Your task to perform on an android device: Search for asus zenbook on walmart, select the first entry, and add it to the cart. Image 0: 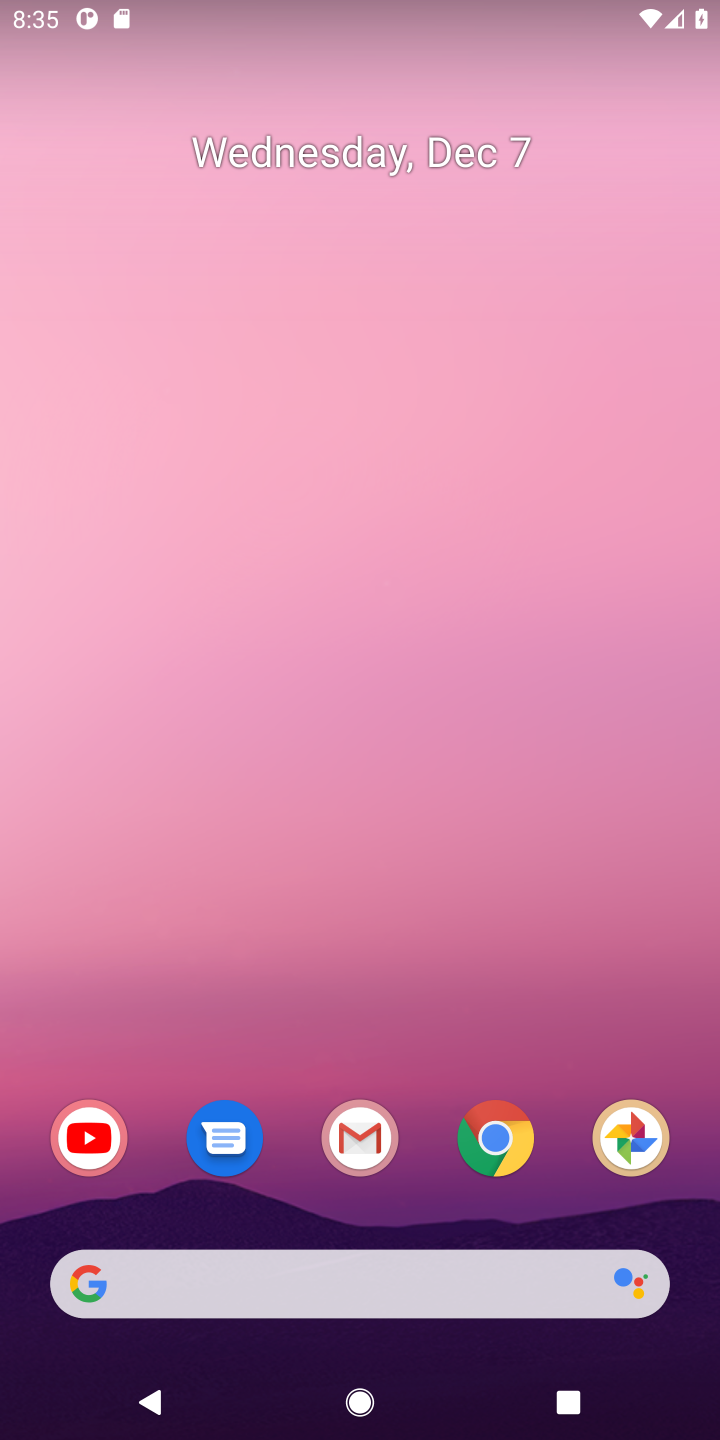
Step 0: press home button
Your task to perform on an android device: Search for asus zenbook on walmart, select the first entry, and add it to the cart. Image 1: 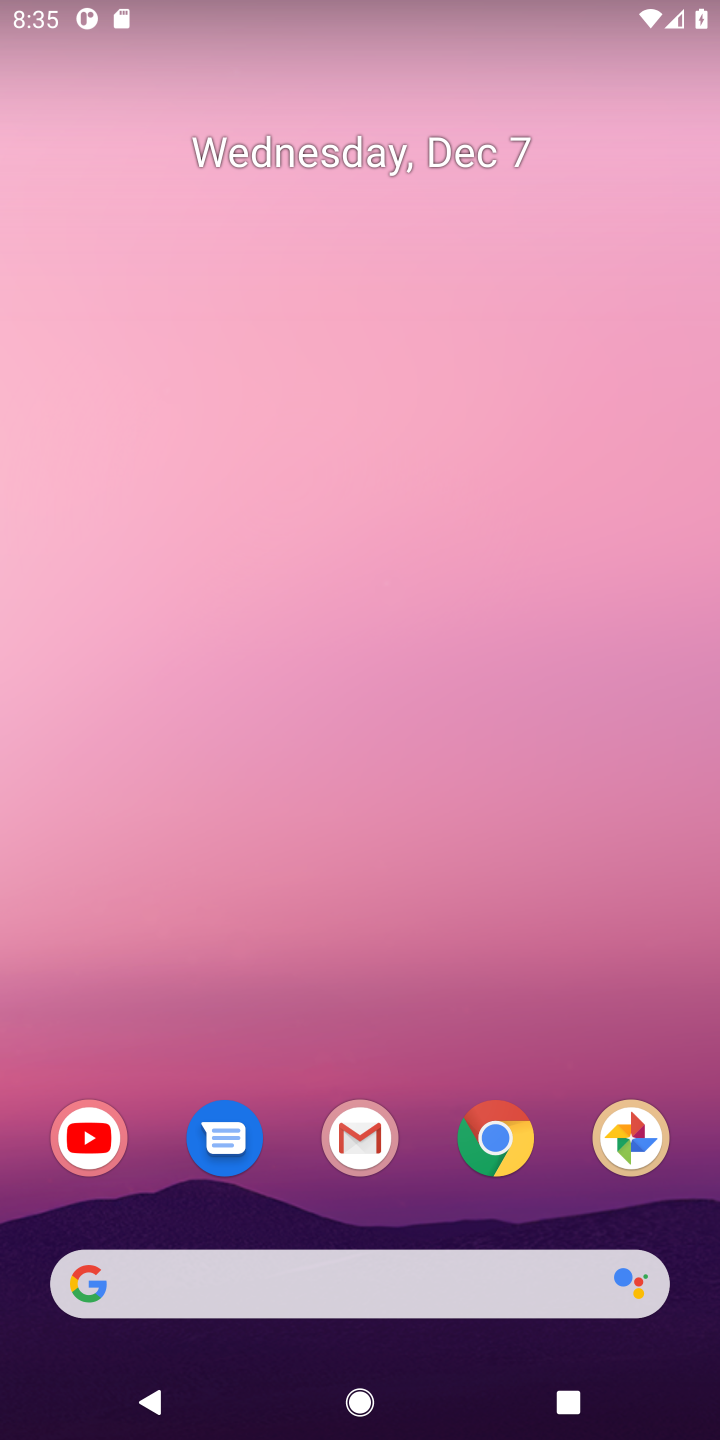
Step 1: click (131, 1294)
Your task to perform on an android device: Search for asus zenbook on walmart, select the first entry, and add it to the cart. Image 2: 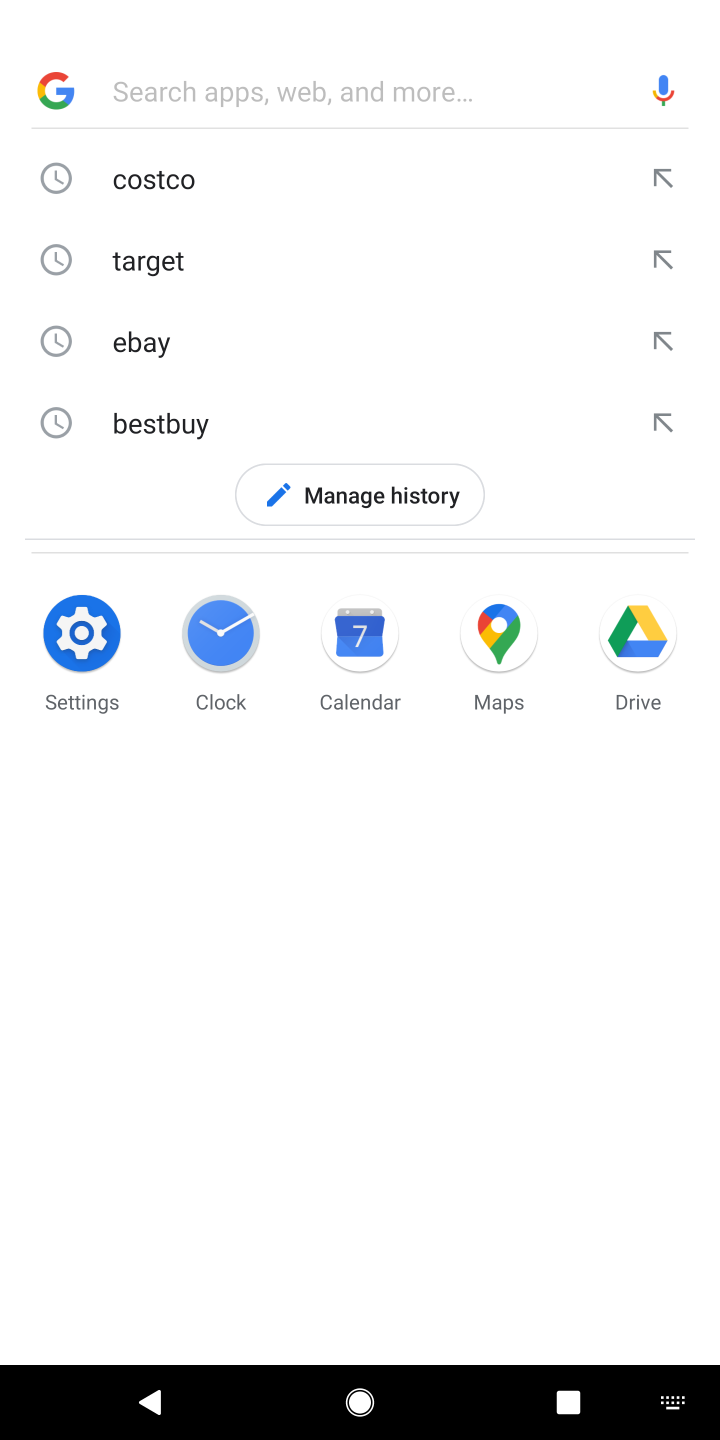
Step 2: press enter
Your task to perform on an android device: Search for asus zenbook on walmart, select the first entry, and add it to the cart. Image 3: 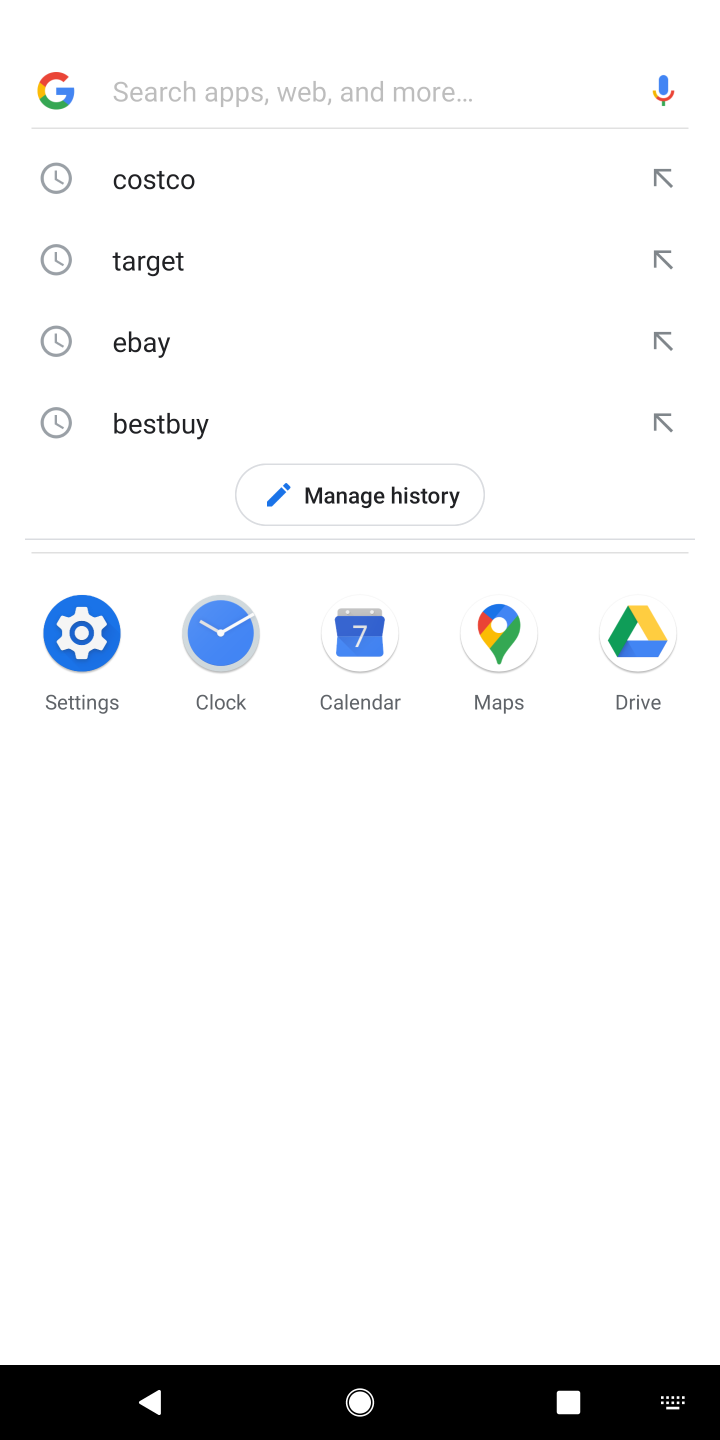
Step 3: type "walmart"
Your task to perform on an android device: Search for asus zenbook on walmart, select the first entry, and add it to the cart. Image 4: 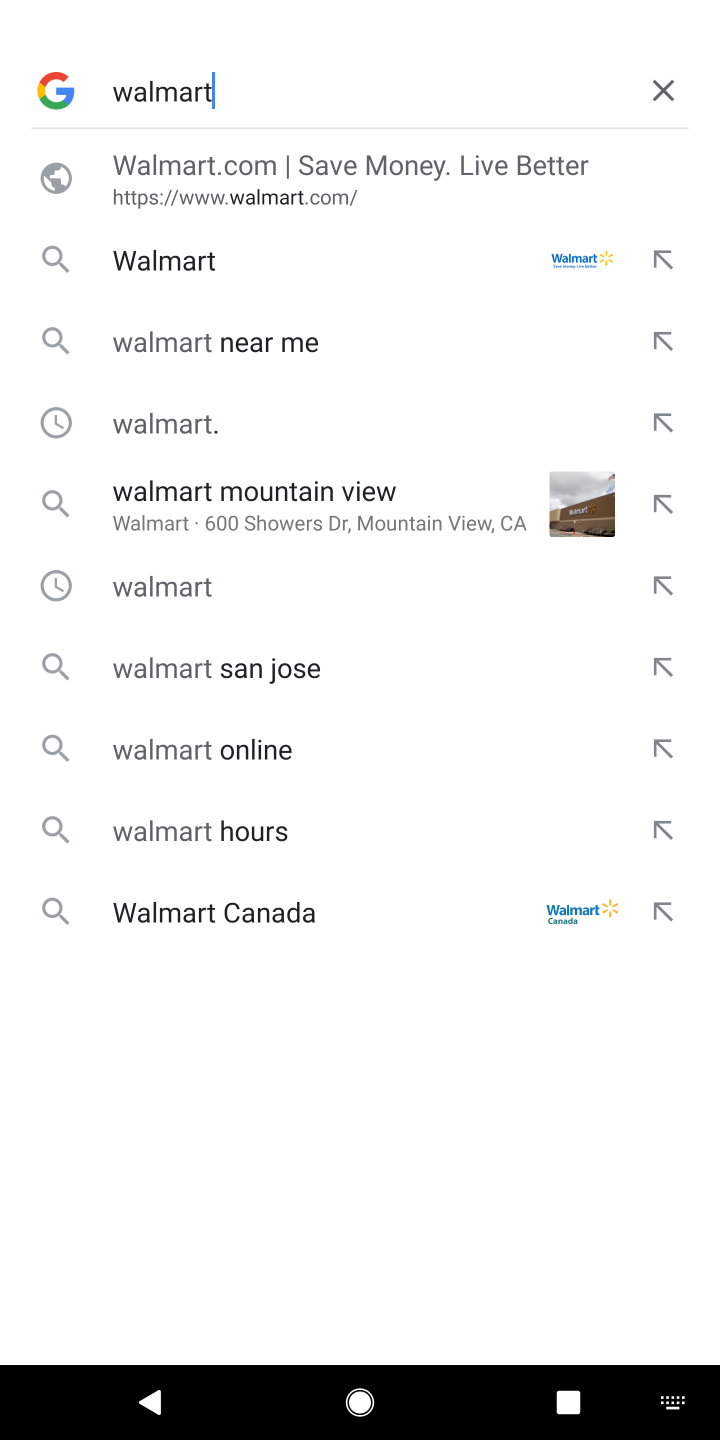
Step 4: press enter
Your task to perform on an android device: Search for asus zenbook on walmart, select the first entry, and add it to the cart. Image 5: 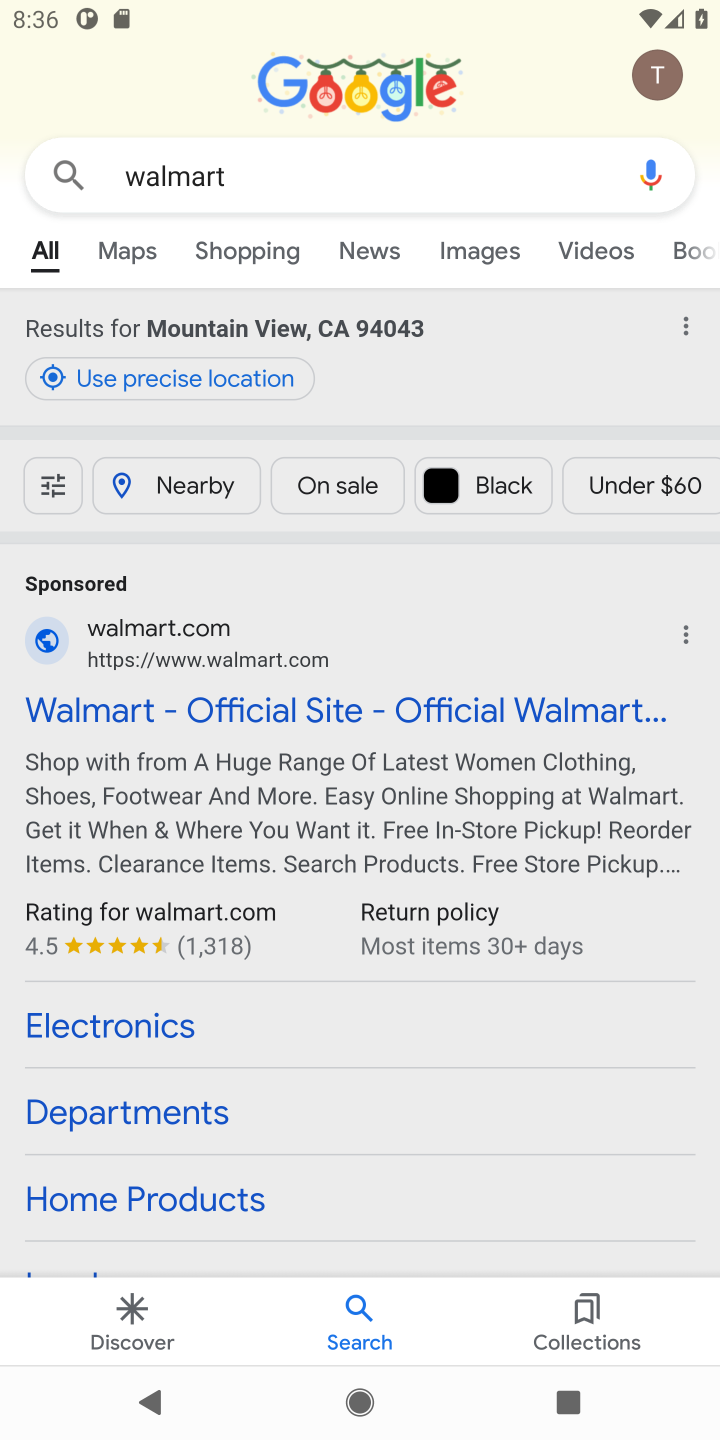
Step 5: click (283, 711)
Your task to perform on an android device: Search for asus zenbook on walmart, select the first entry, and add it to the cart. Image 6: 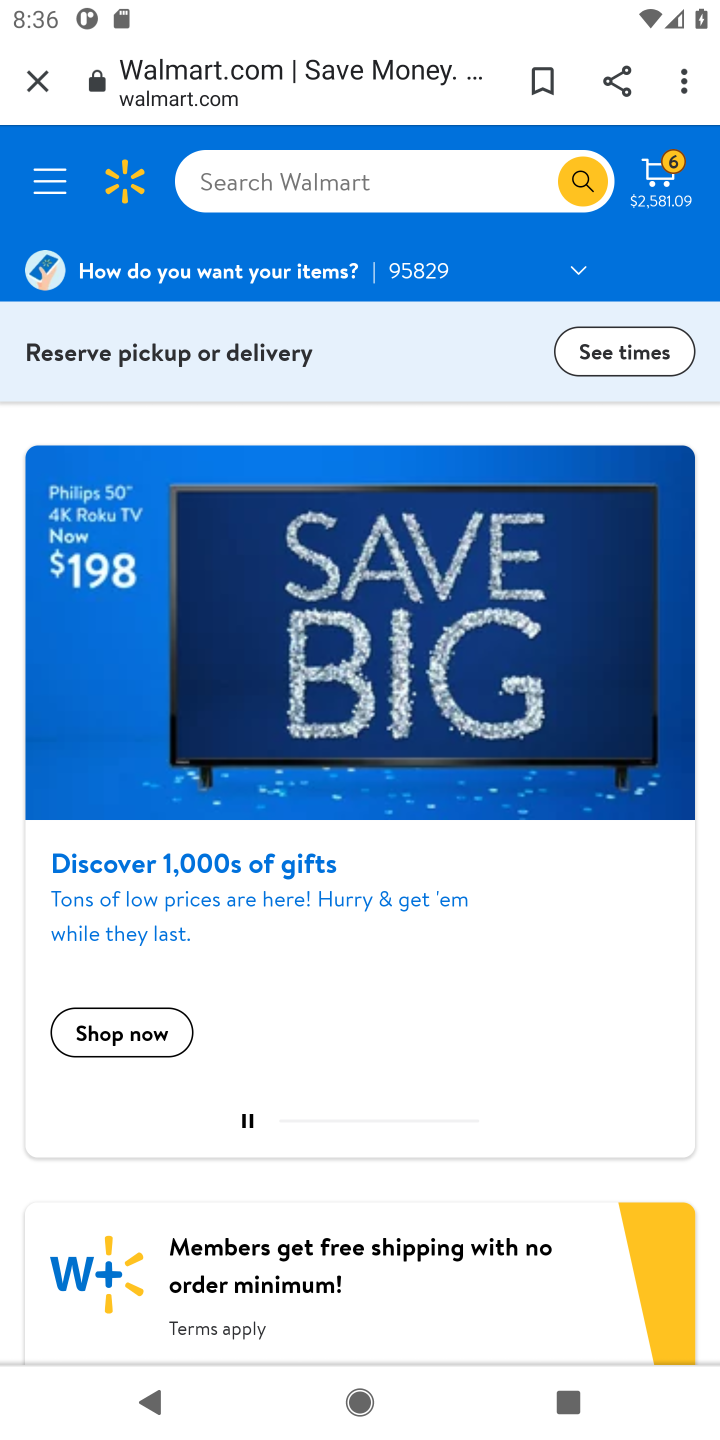
Step 6: click (250, 179)
Your task to perform on an android device: Search for asus zenbook on walmart, select the first entry, and add it to the cart. Image 7: 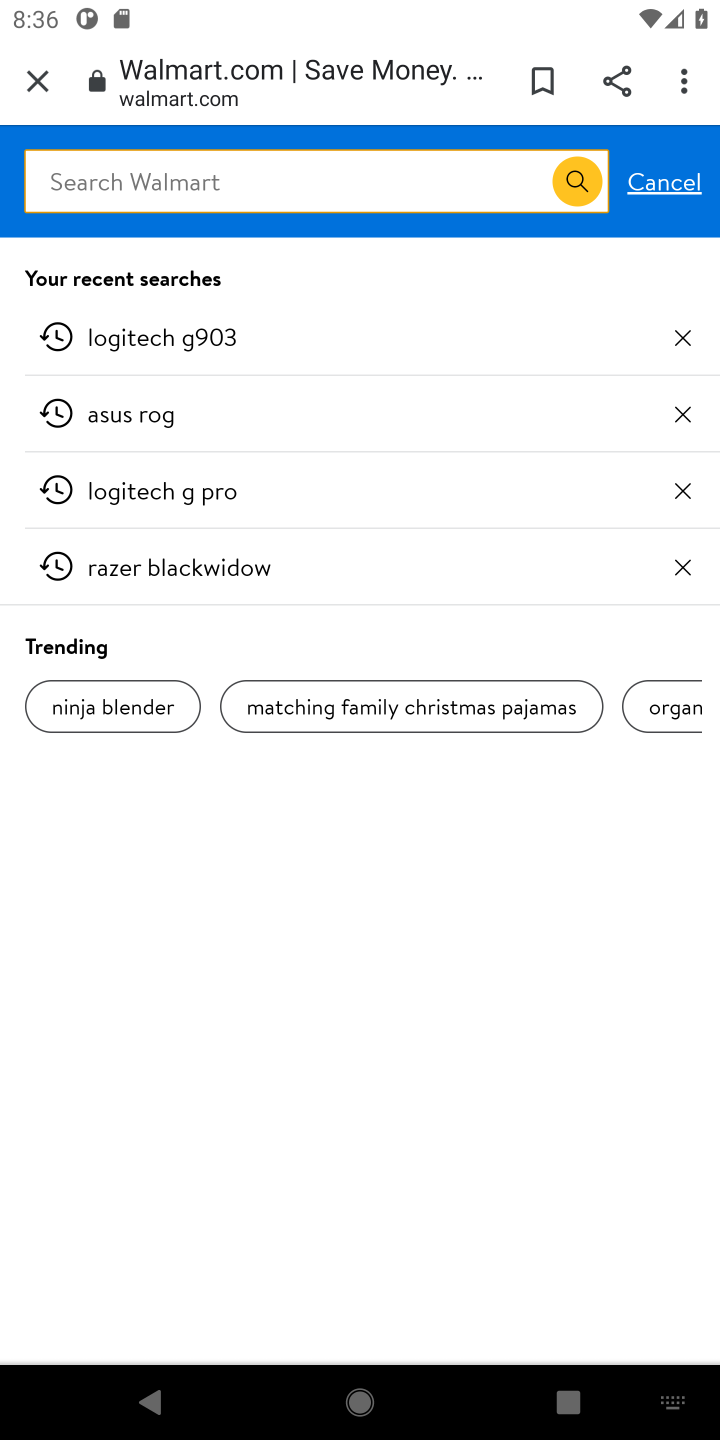
Step 7: type "asus zenbook "
Your task to perform on an android device: Search for asus zenbook on walmart, select the first entry, and add it to the cart. Image 8: 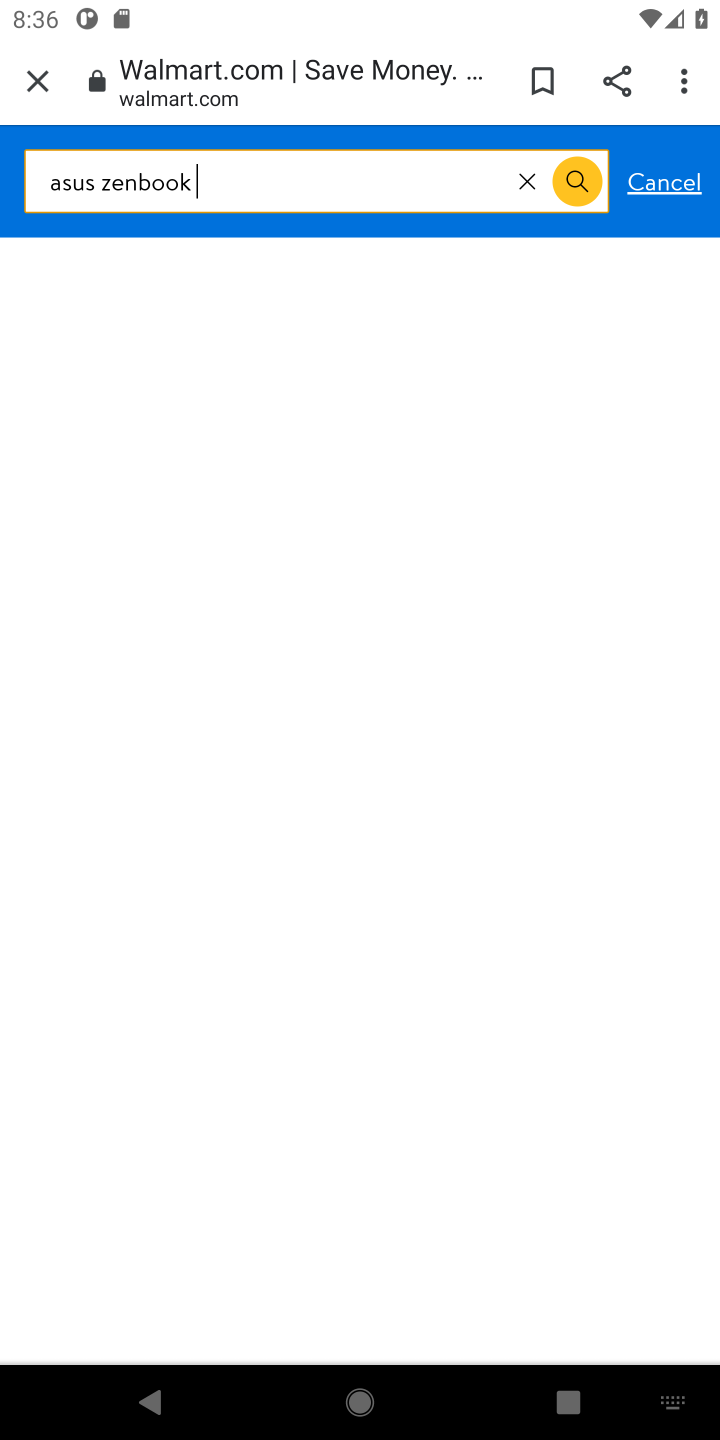
Step 8: press enter
Your task to perform on an android device: Search for asus zenbook on walmart, select the first entry, and add it to the cart. Image 9: 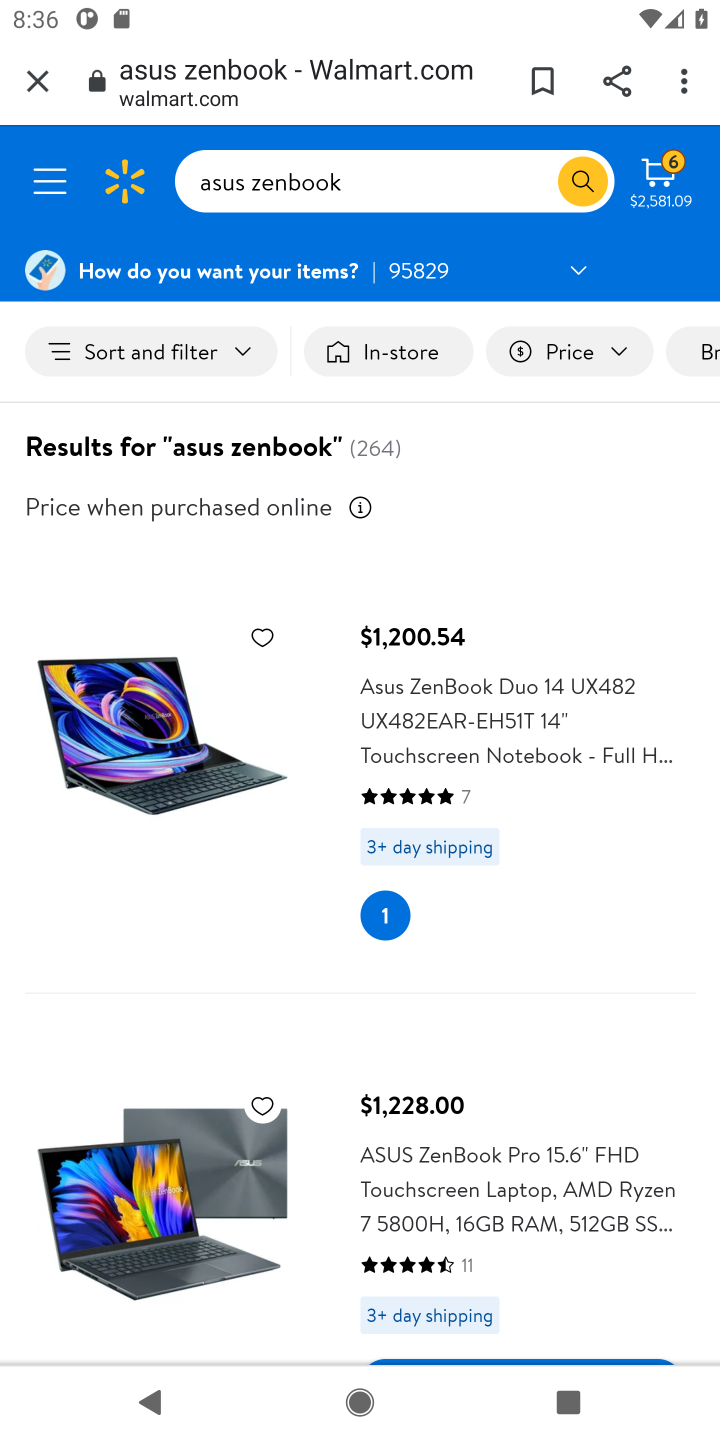
Step 9: drag from (551, 1155) to (600, 737)
Your task to perform on an android device: Search for asus zenbook on walmart, select the first entry, and add it to the cart. Image 10: 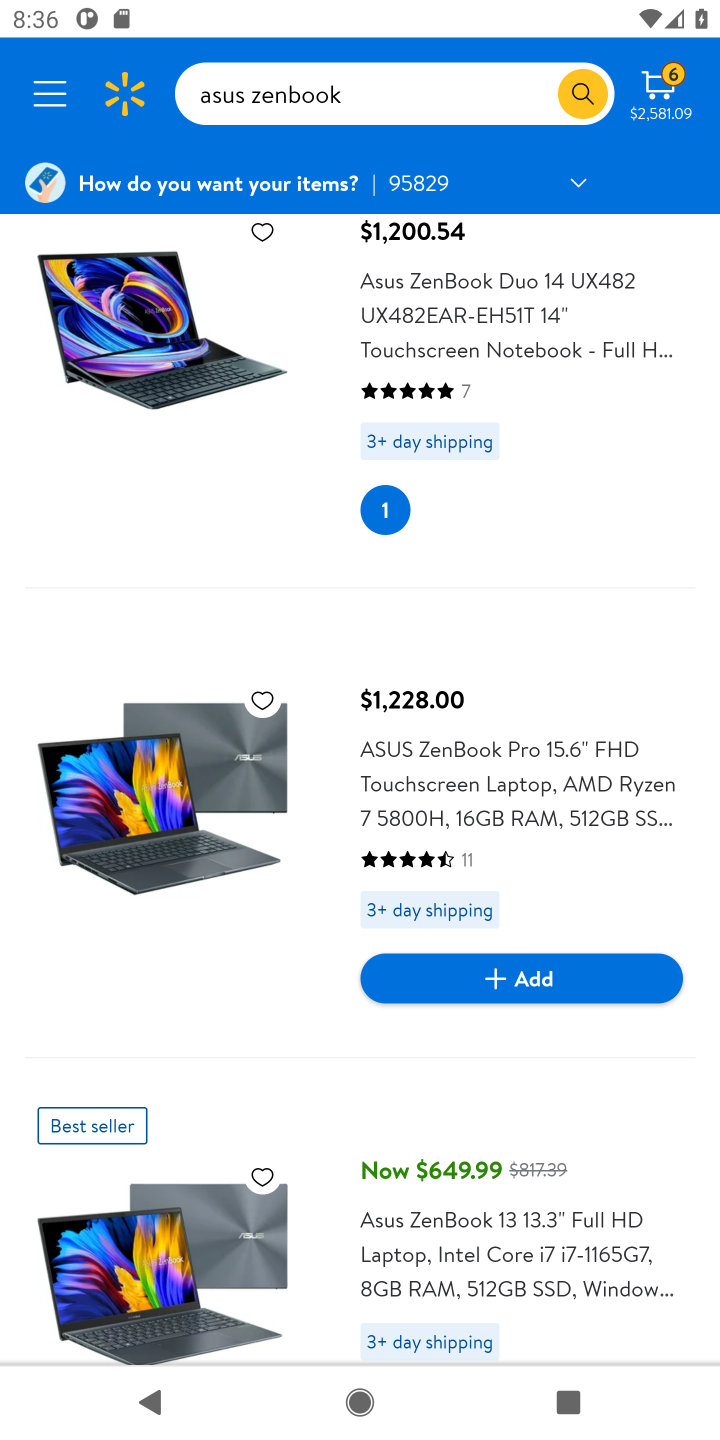
Step 10: drag from (295, 457) to (354, 1134)
Your task to perform on an android device: Search for asus zenbook on walmart, select the first entry, and add it to the cart. Image 11: 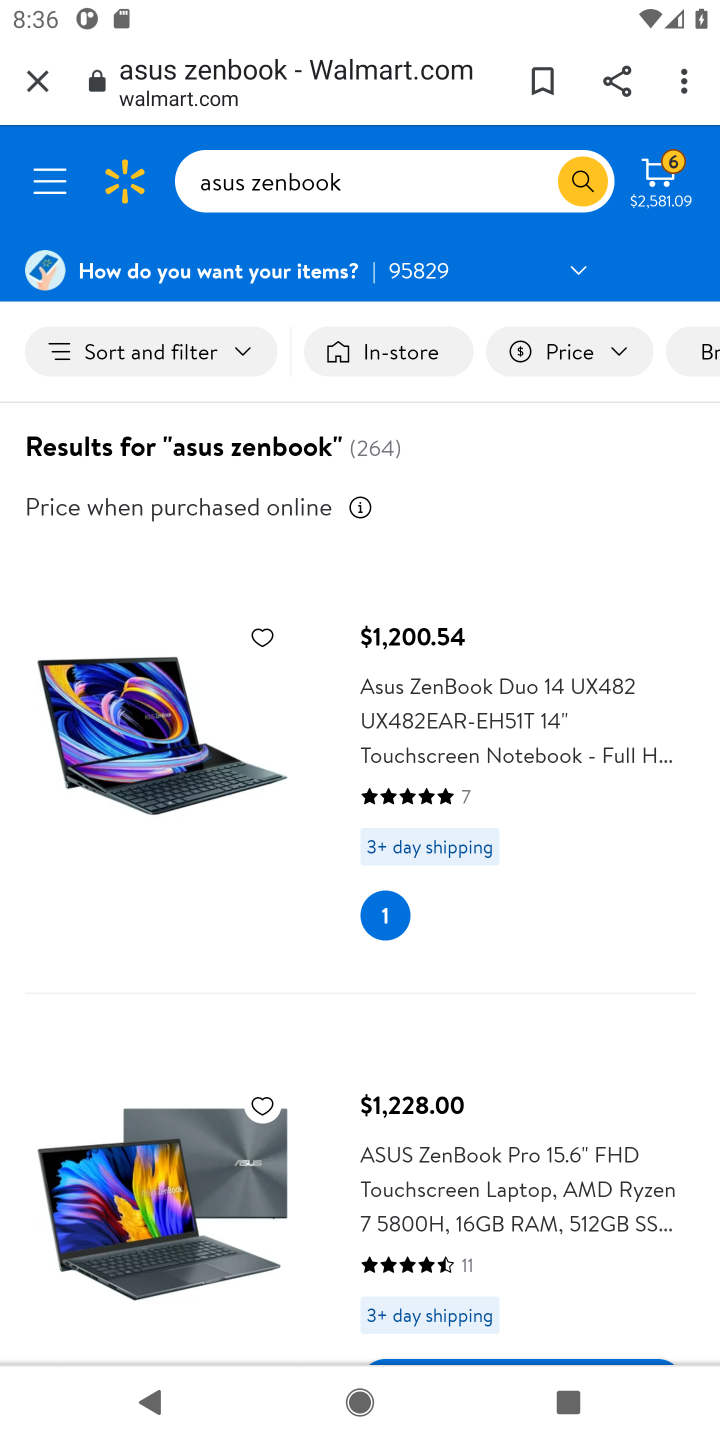
Step 11: drag from (561, 990) to (554, 716)
Your task to perform on an android device: Search for asus zenbook on walmart, select the first entry, and add it to the cart. Image 12: 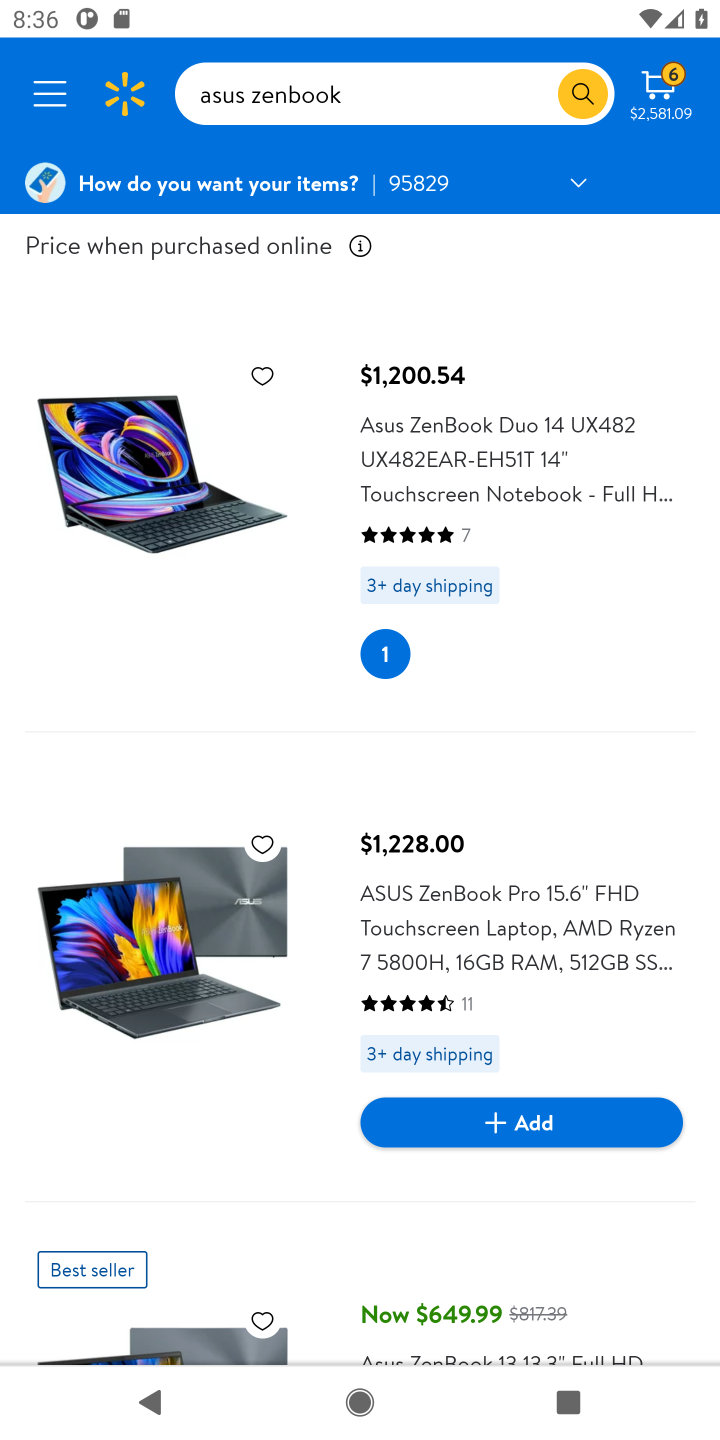
Step 12: click (534, 1131)
Your task to perform on an android device: Search for asus zenbook on walmart, select the first entry, and add it to the cart. Image 13: 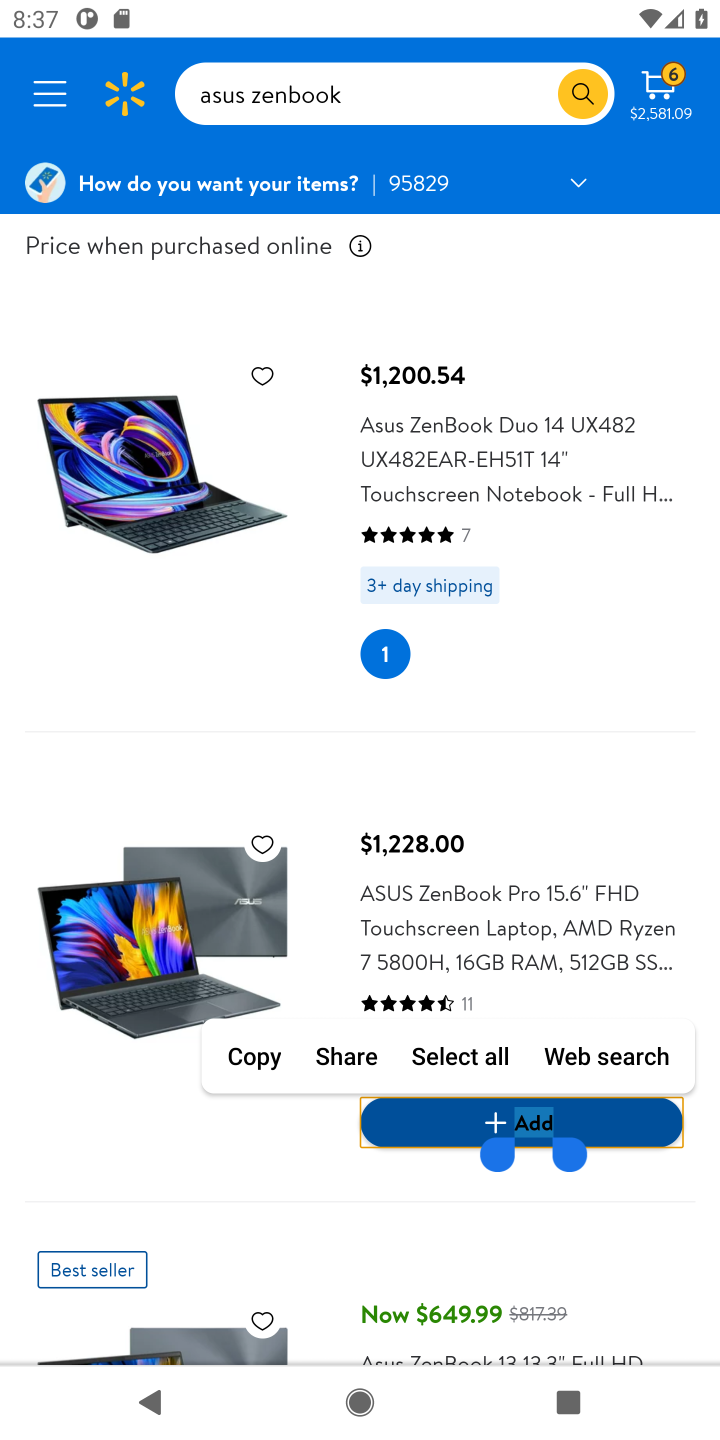
Step 13: task complete